Your task to perform on an android device: Go to location settings Image 0: 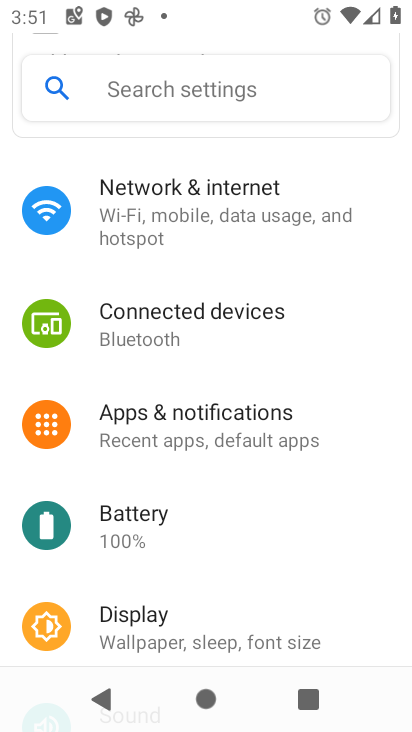
Step 0: press home button
Your task to perform on an android device: Go to location settings Image 1: 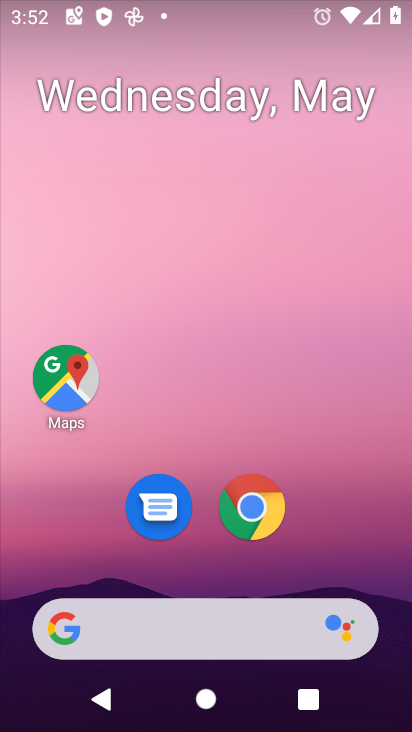
Step 1: drag from (345, 543) to (408, 93)
Your task to perform on an android device: Go to location settings Image 2: 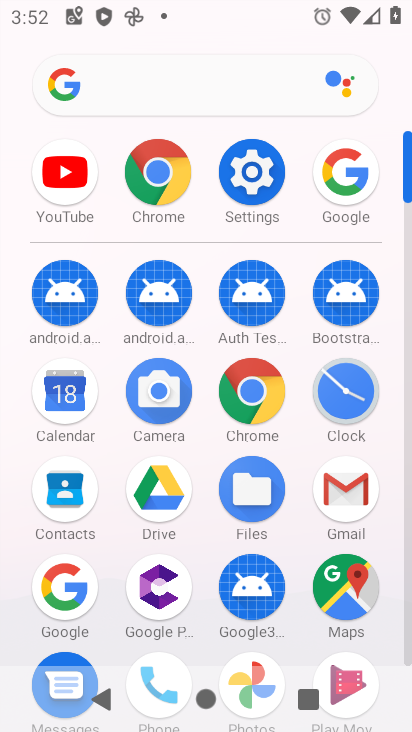
Step 2: click (253, 188)
Your task to perform on an android device: Go to location settings Image 3: 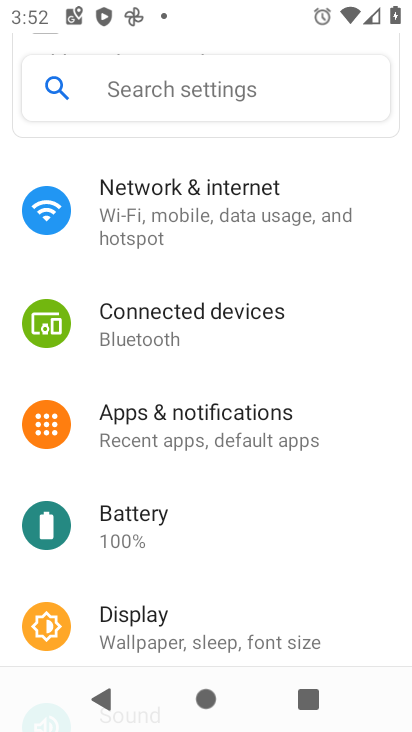
Step 3: drag from (327, 597) to (335, 269)
Your task to perform on an android device: Go to location settings Image 4: 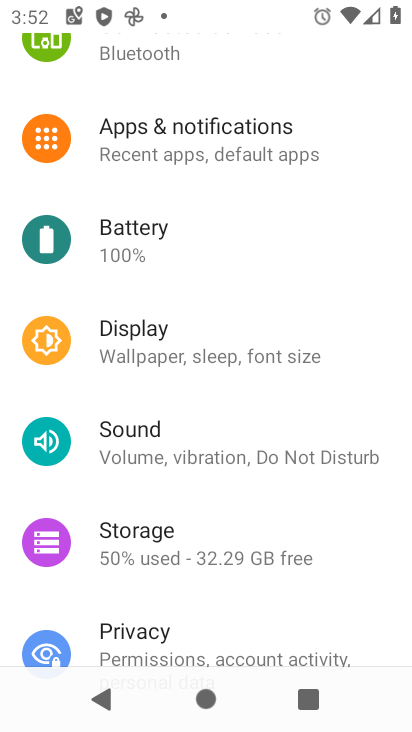
Step 4: drag from (209, 433) to (232, 152)
Your task to perform on an android device: Go to location settings Image 5: 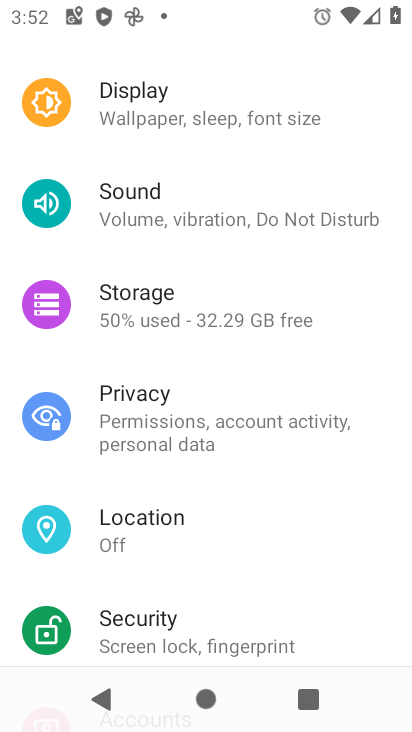
Step 5: click (141, 507)
Your task to perform on an android device: Go to location settings Image 6: 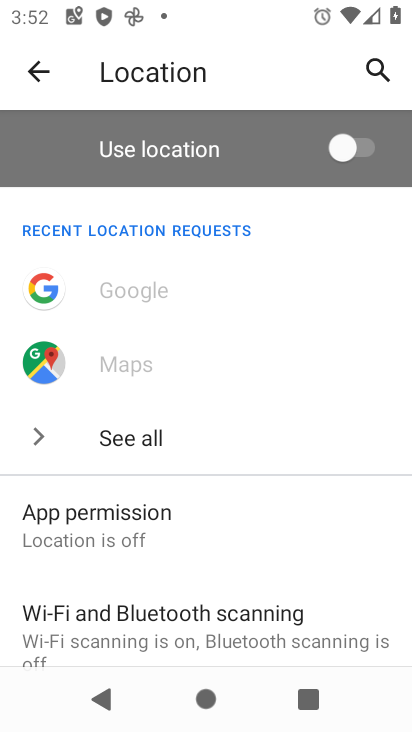
Step 6: task complete